Your task to perform on an android device: empty trash in the gmail app Image 0: 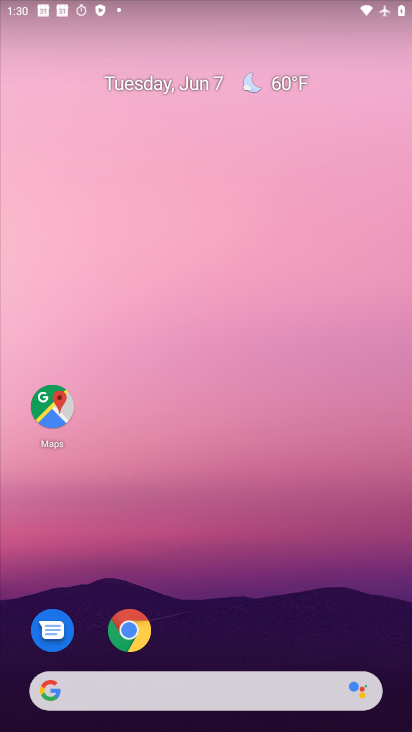
Step 0: drag from (353, 621) to (4, 247)
Your task to perform on an android device: empty trash in the gmail app Image 1: 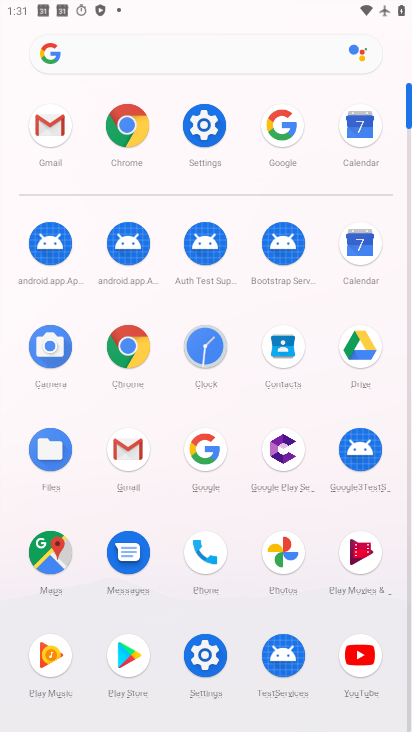
Step 1: click (53, 149)
Your task to perform on an android device: empty trash in the gmail app Image 2: 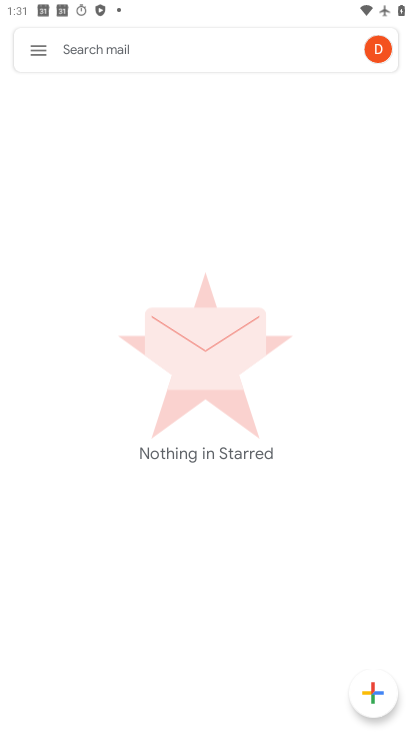
Step 2: click (29, 60)
Your task to perform on an android device: empty trash in the gmail app Image 3: 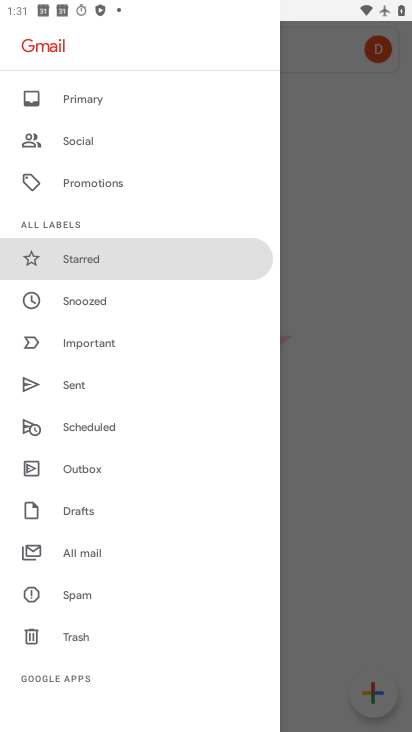
Step 3: click (78, 630)
Your task to perform on an android device: empty trash in the gmail app Image 4: 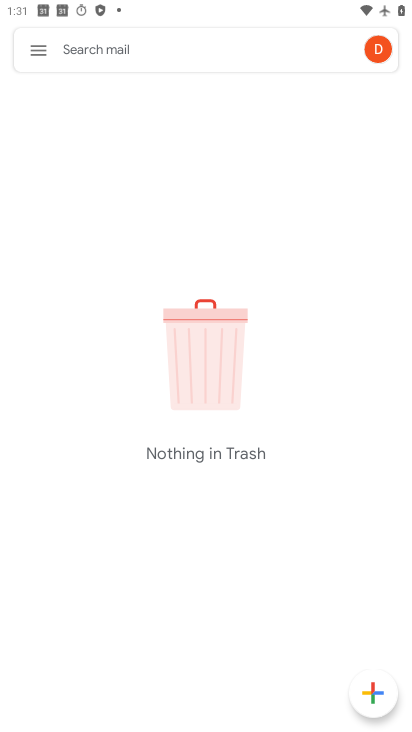
Step 4: task complete